Your task to perform on an android device: Check the news Image 0: 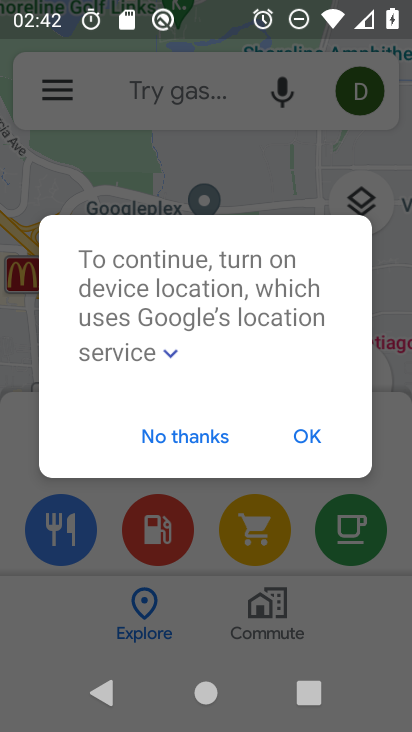
Step 0: press home button
Your task to perform on an android device: Check the news Image 1: 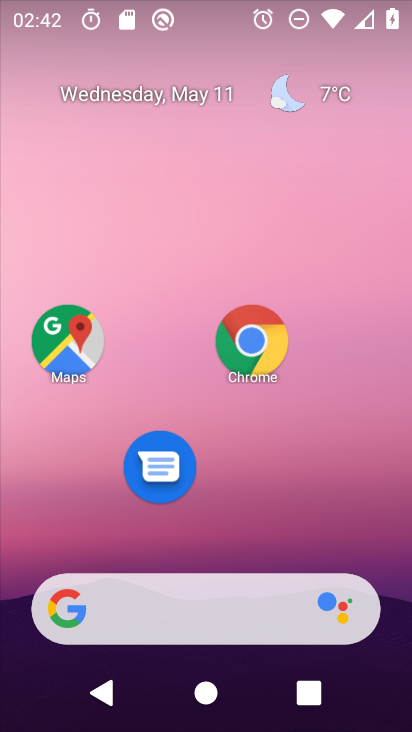
Step 1: click (75, 613)
Your task to perform on an android device: Check the news Image 2: 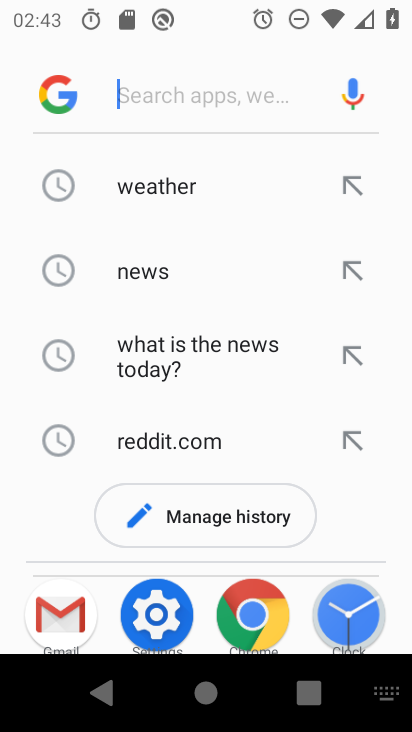
Step 2: click (159, 267)
Your task to perform on an android device: Check the news Image 3: 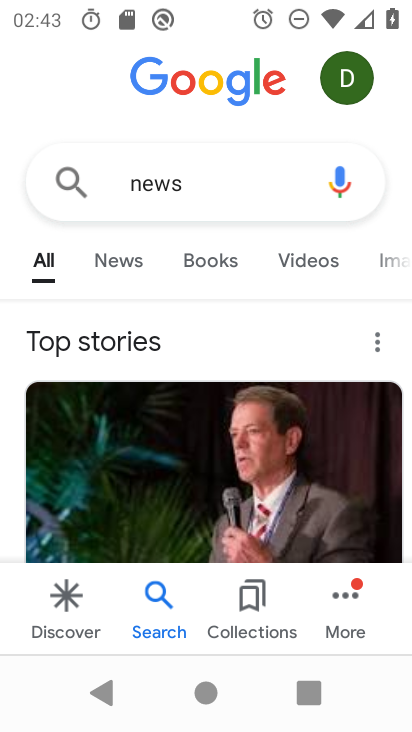
Step 3: click (129, 262)
Your task to perform on an android device: Check the news Image 4: 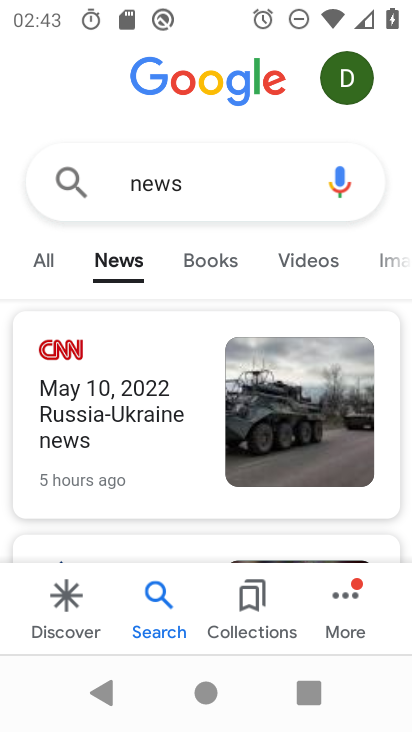
Step 4: task complete